Your task to perform on an android device: Is it going to rain tomorrow? Image 0: 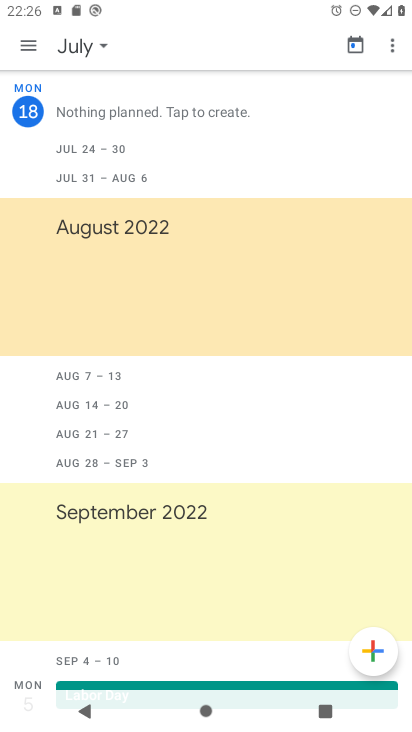
Step 0: press home button
Your task to perform on an android device: Is it going to rain tomorrow? Image 1: 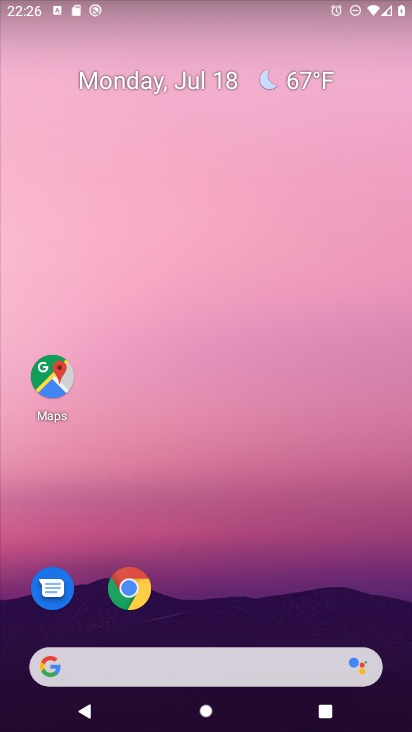
Step 1: drag from (6, 250) to (368, 295)
Your task to perform on an android device: Is it going to rain tomorrow? Image 2: 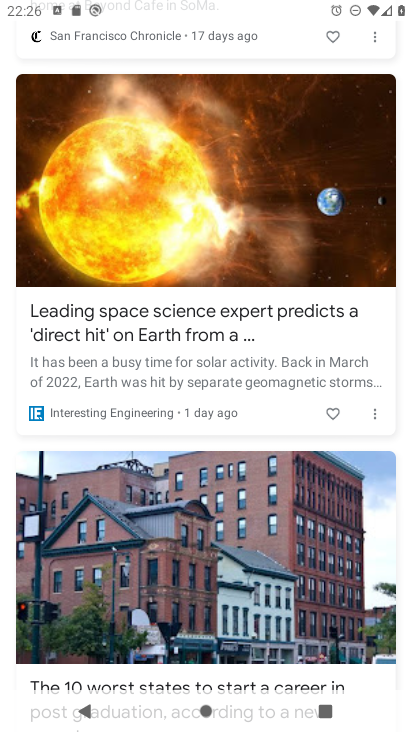
Step 2: drag from (326, 84) to (307, 560)
Your task to perform on an android device: Is it going to rain tomorrow? Image 3: 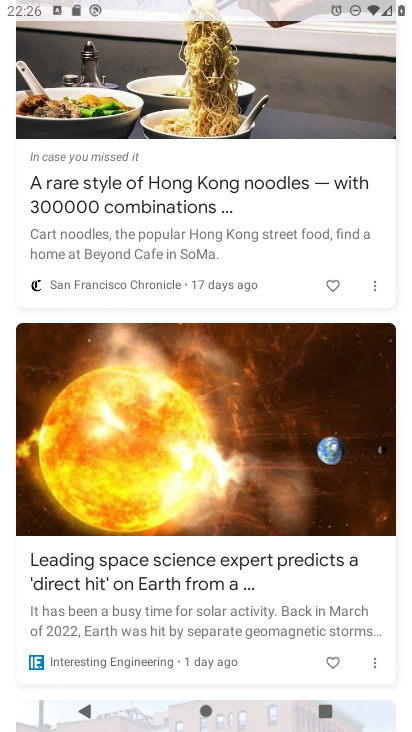
Step 3: drag from (240, 179) to (233, 627)
Your task to perform on an android device: Is it going to rain tomorrow? Image 4: 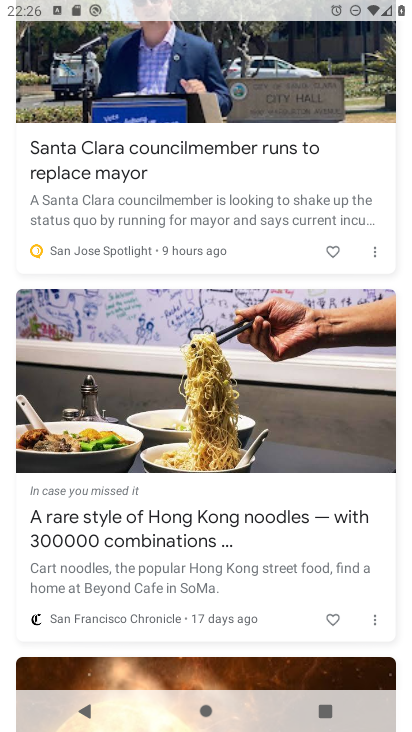
Step 4: drag from (268, 173) to (256, 634)
Your task to perform on an android device: Is it going to rain tomorrow? Image 5: 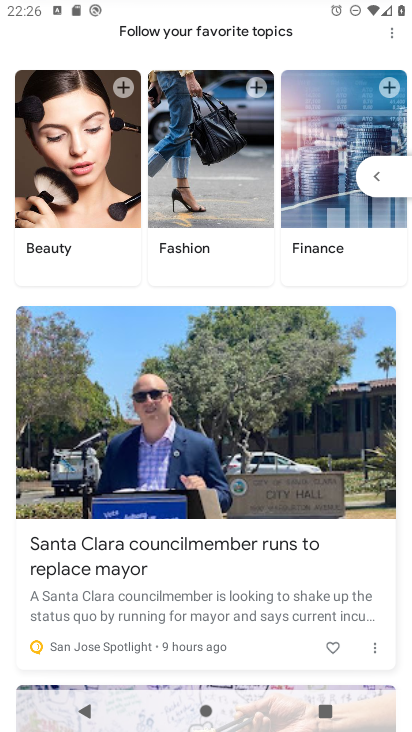
Step 5: drag from (287, 141) to (296, 614)
Your task to perform on an android device: Is it going to rain tomorrow? Image 6: 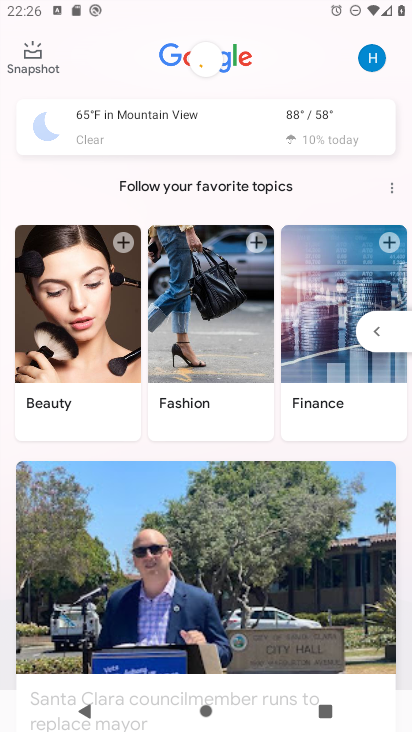
Step 6: click (308, 116)
Your task to perform on an android device: Is it going to rain tomorrow? Image 7: 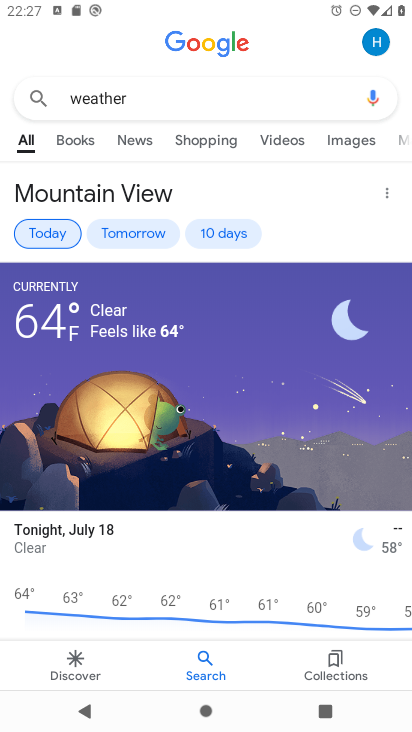
Step 7: click (134, 234)
Your task to perform on an android device: Is it going to rain tomorrow? Image 8: 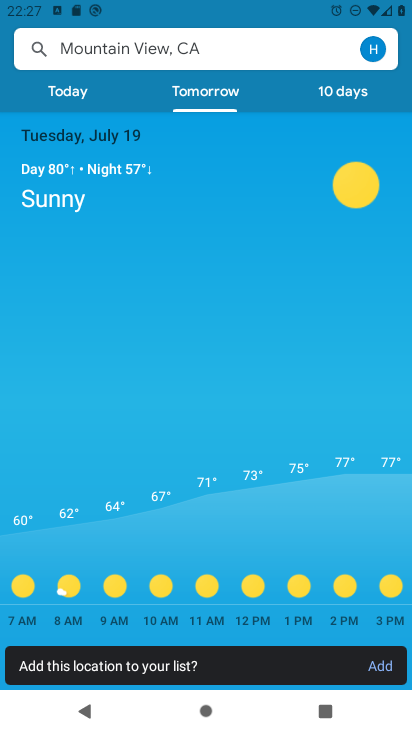
Step 8: task complete